Your task to perform on an android device: set the timer Image 0: 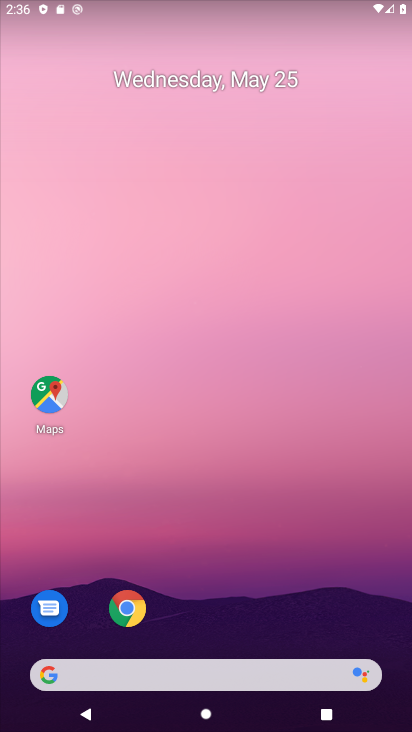
Step 0: drag from (315, 595) to (320, 13)
Your task to perform on an android device: set the timer Image 1: 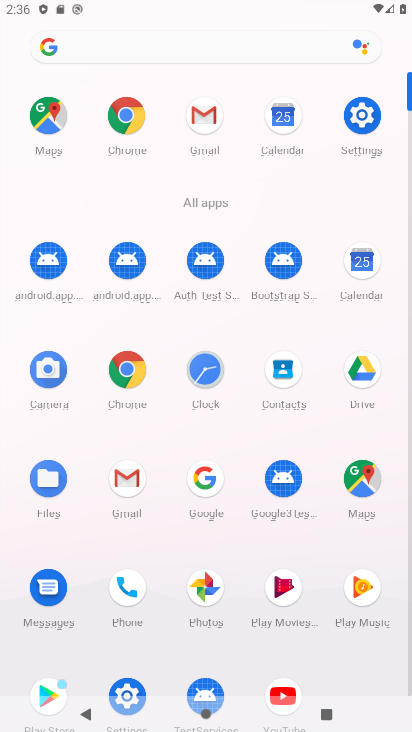
Step 1: click (208, 374)
Your task to perform on an android device: set the timer Image 2: 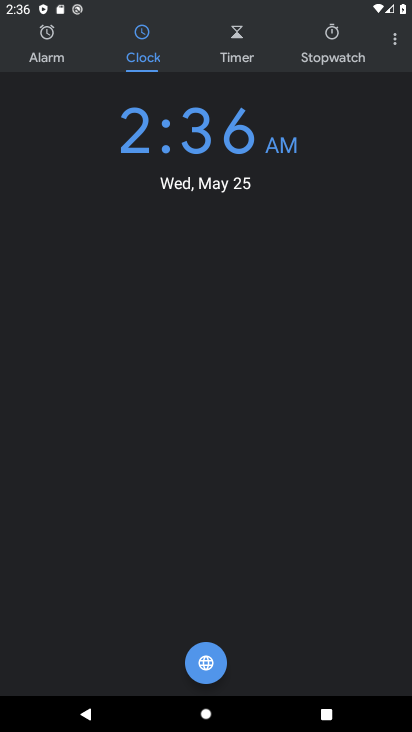
Step 2: click (243, 52)
Your task to perform on an android device: set the timer Image 3: 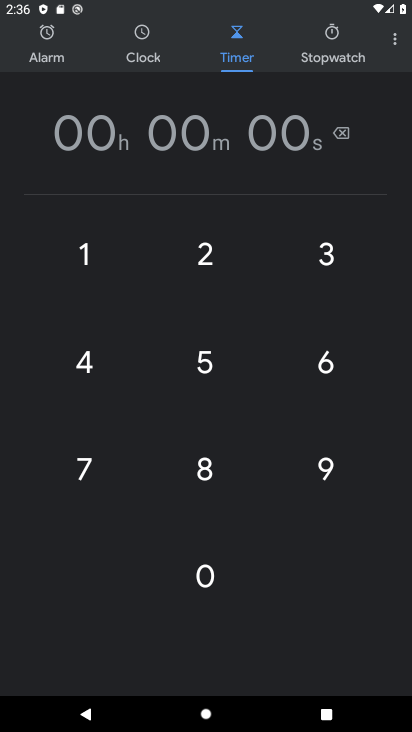
Step 3: click (89, 373)
Your task to perform on an android device: set the timer Image 4: 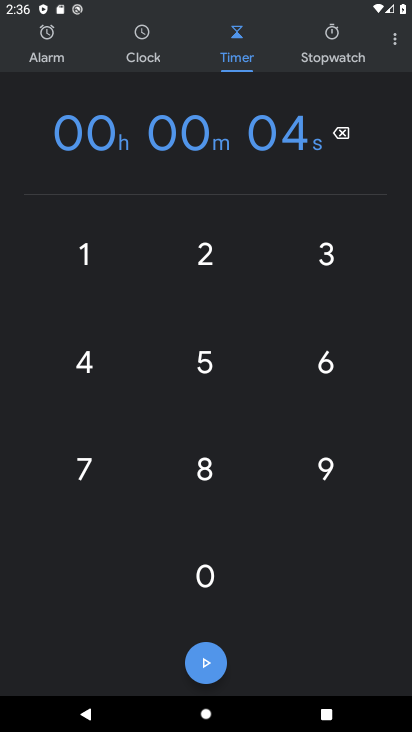
Step 4: click (203, 575)
Your task to perform on an android device: set the timer Image 5: 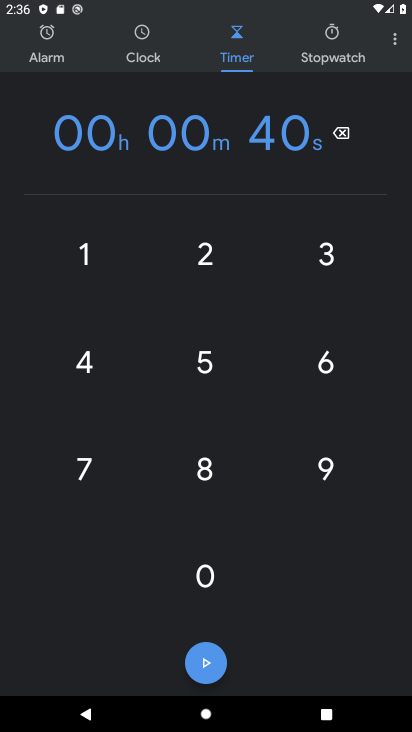
Step 5: click (206, 669)
Your task to perform on an android device: set the timer Image 6: 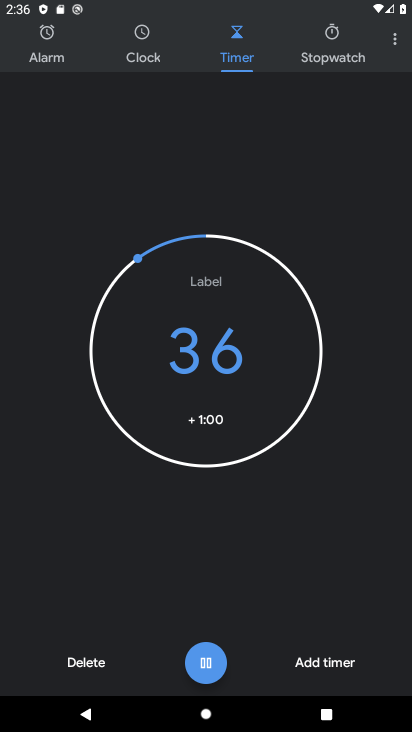
Step 6: task complete